Your task to perform on an android device: Open sound settings Image 0: 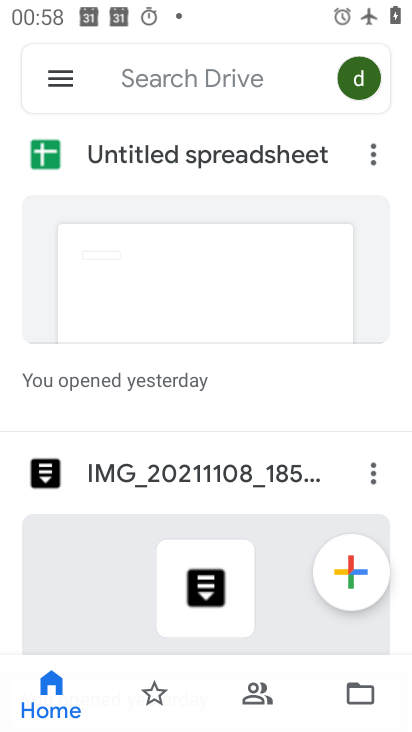
Step 0: press home button
Your task to perform on an android device: Open sound settings Image 1: 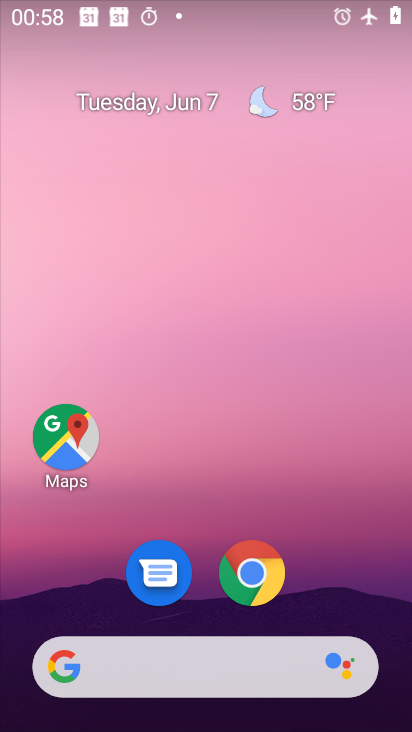
Step 1: drag from (348, 589) to (303, 202)
Your task to perform on an android device: Open sound settings Image 2: 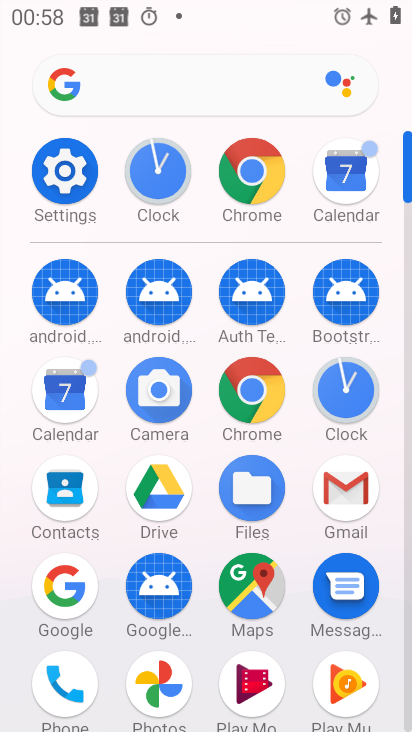
Step 2: click (65, 181)
Your task to perform on an android device: Open sound settings Image 3: 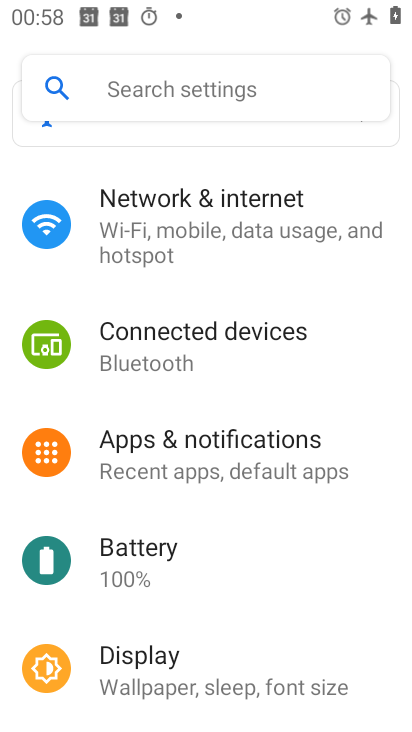
Step 3: drag from (217, 575) to (252, 176)
Your task to perform on an android device: Open sound settings Image 4: 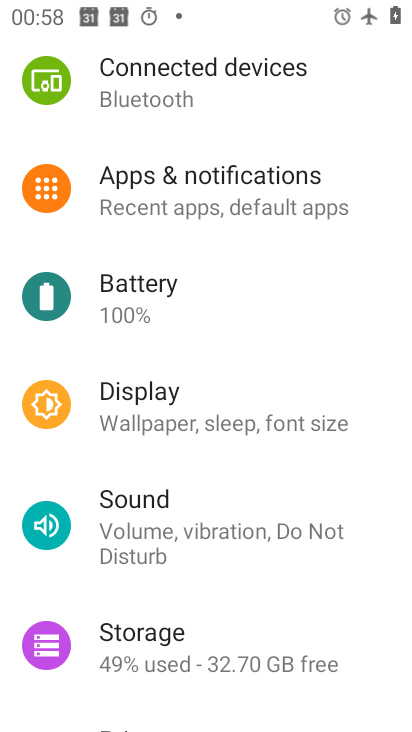
Step 4: click (106, 519)
Your task to perform on an android device: Open sound settings Image 5: 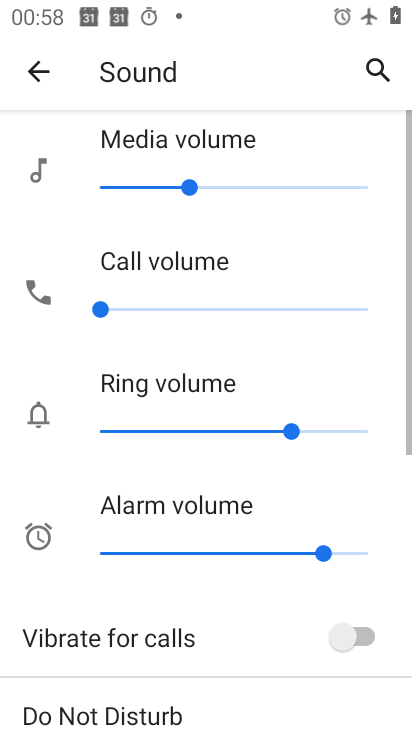
Step 5: task complete